Your task to perform on an android device: Do I have any events this weekend? Image 0: 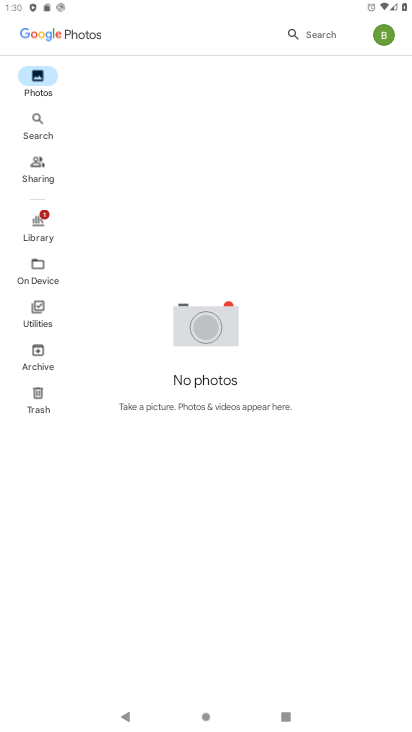
Step 0: press home button
Your task to perform on an android device: Do I have any events this weekend? Image 1: 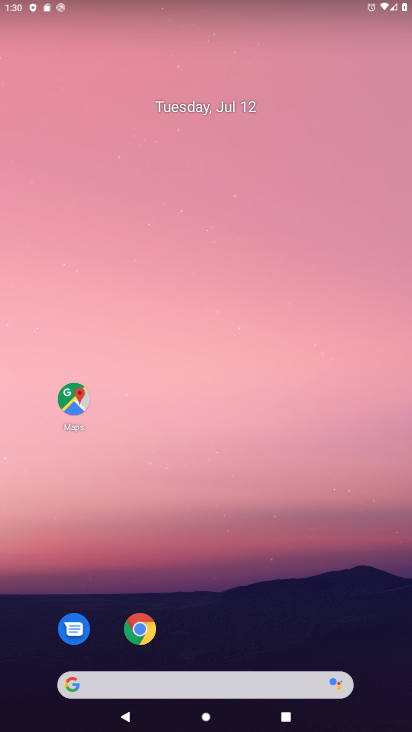
Step 1: drag from (197, 572) to (249, 51)
Your task to perform on an android device: Do I have any events this weekend? Image 2: 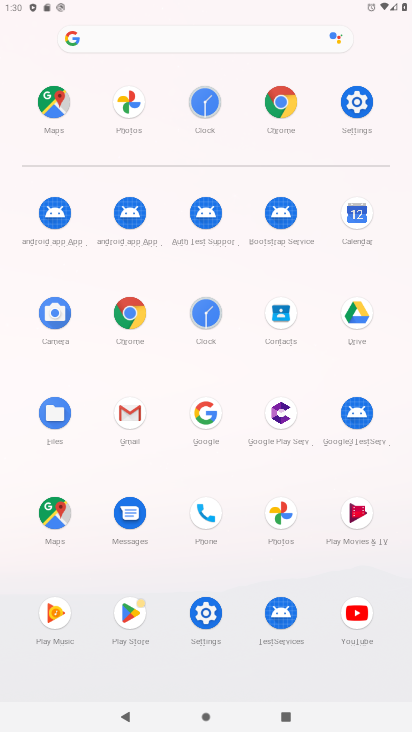
Step 2: click (357, 221)
Your task to perform on an android device: Do I have any events this weekend? Image 3: 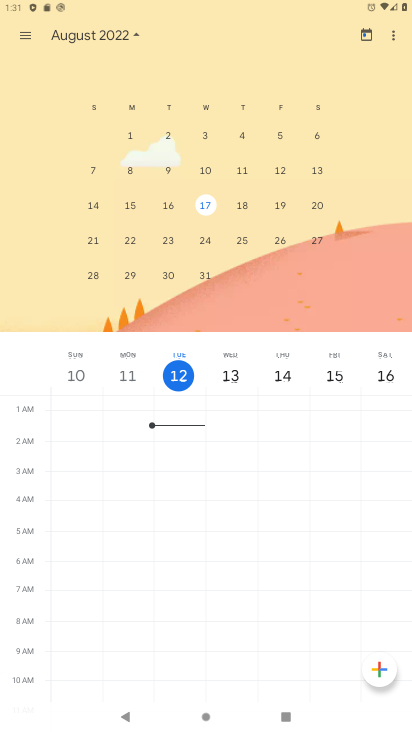
Step 3: drag from (85, 190) to (307, 190)
Your task to perform on an android device: Do I have any events this weekend? Image 4: 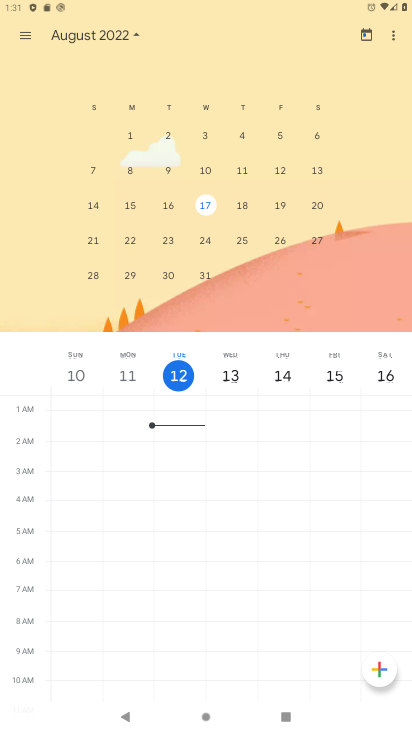
Step 4: click (324, 208)
Your task to perform on an android device: Do I have any events this weekend? Image 5: 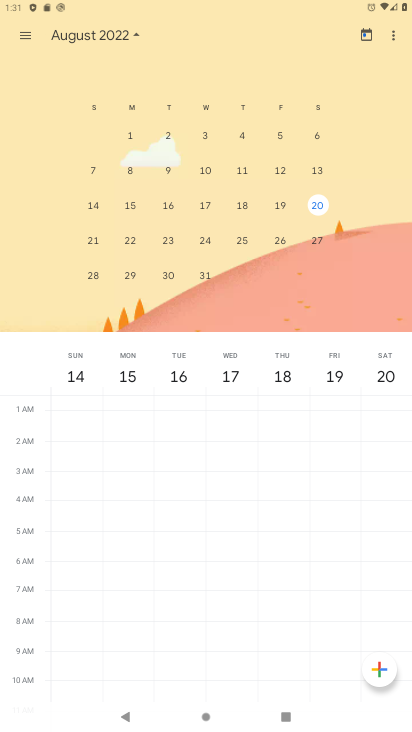
Step 5: task complete